Your task to perform on an android device: Open wifi settings Image 0: 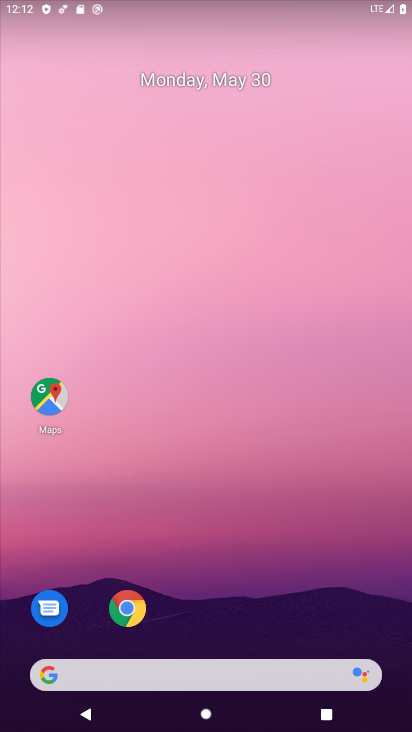
Step 0: drag from (185, 553) to (305, 254)
Your task to perform on an android device: Open wifi settings Image 1: 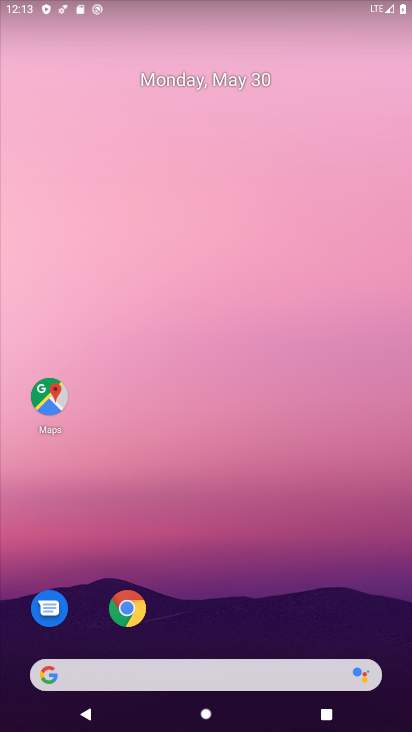
Step 1: drag from (213, 657) to (208, 244)
Your task to perform on an android device: Open wifi settings Image 2: 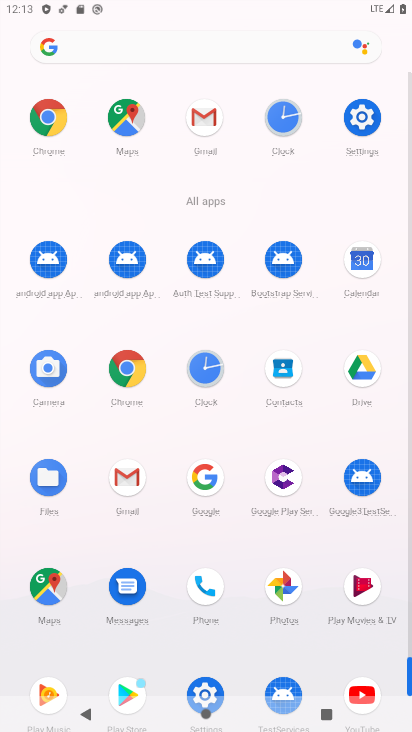
Step 2: click (358, 133)
Your task to perform on an android device: Open wifi settings Image 3: 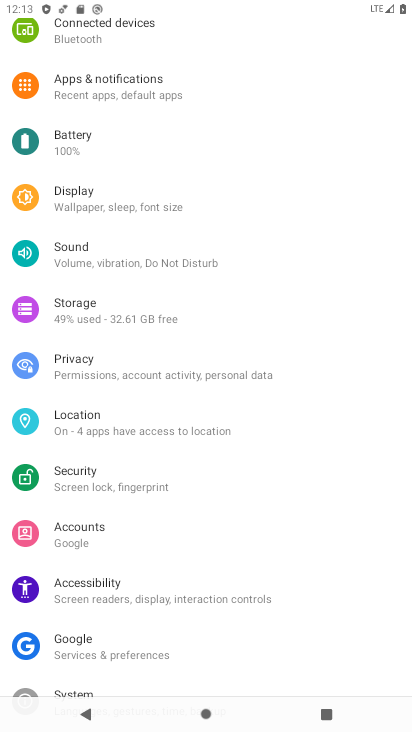
Step 3: drag from (249, 186) to (204, 523)
Your task to perform on an android device: Open wifi settings Image 4: 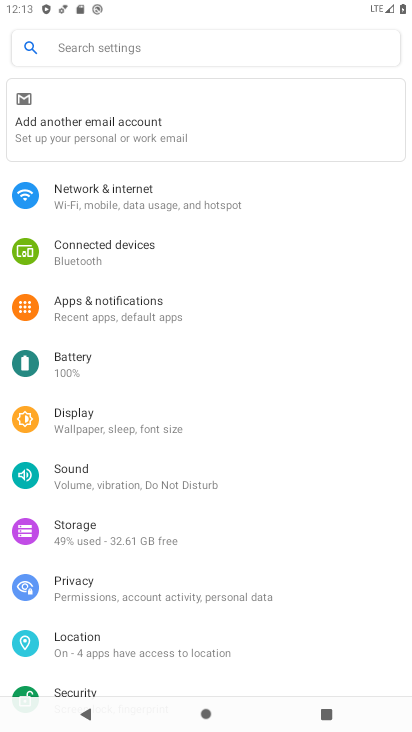
Step 4: click (128, 211)
Your task to perform on an android device: Open wifi settings Image 5: 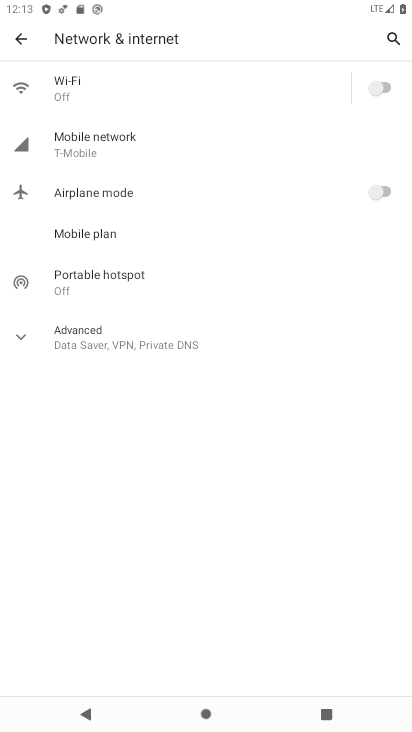
Step 5: click (72, 79)
Your task to perform on an android device: Open wifi settings Image 6: 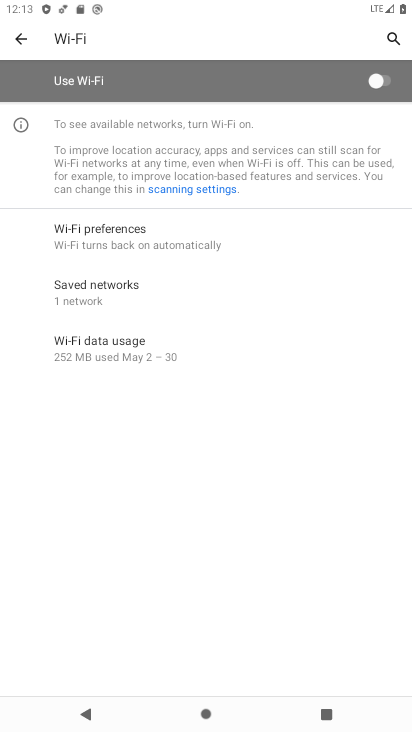
Step 6: task complete